Your task to perform on an android device: toggle pop-ups in chrome Image 0: 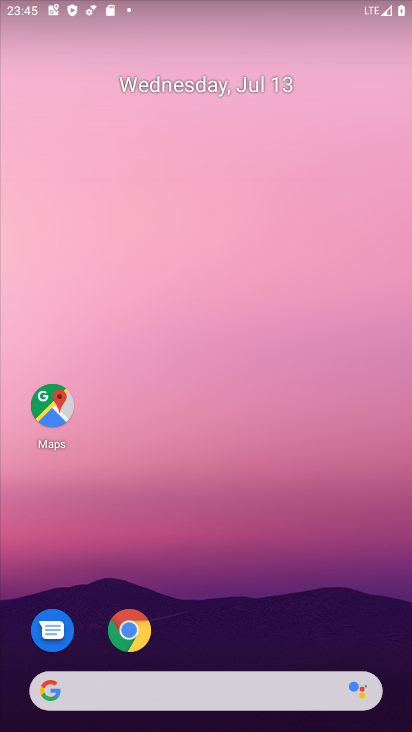
Step 0: drag from (365, 629) to (350, 73)
Your task to perform on an android device: toggle pop-ups in chrome Image 1: 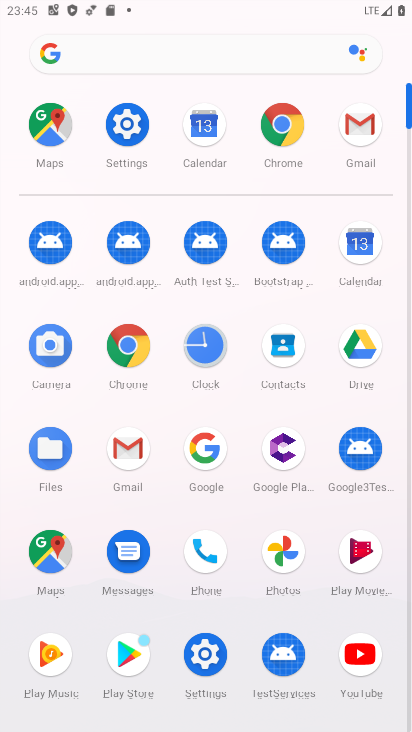
Step 1: click (129, 349)
Your task to perform on an android device: toggle pop-ups in chrome Image 2: 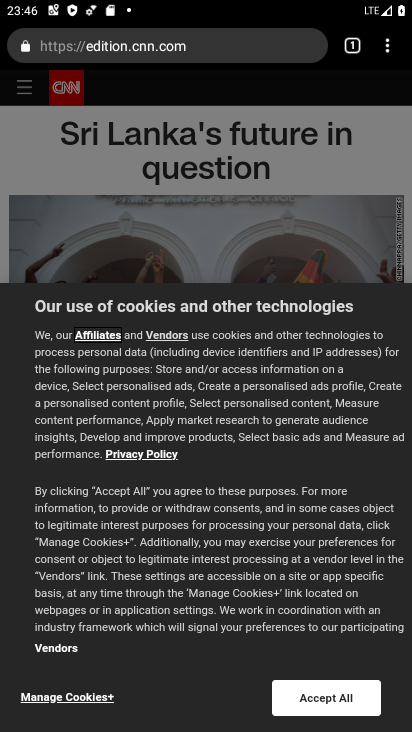
Step 2: click (387, 51)
Your task to perform on an android device: toggle pop-ups in chrome Image 3: 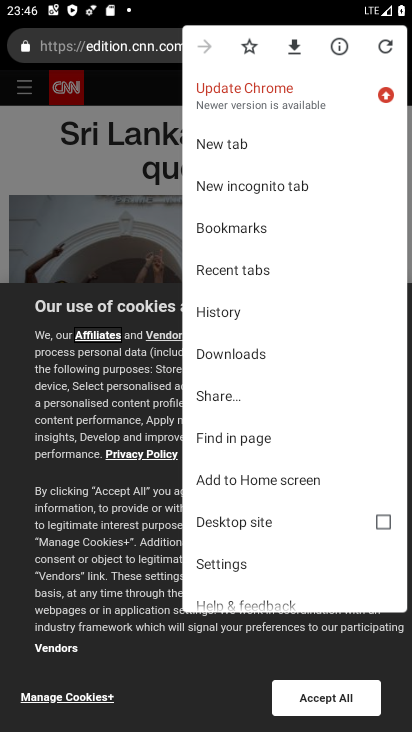
Step 3: click (231, 567)
Your task to perform on an android device: toggle pop-ups in chrome Image 4: 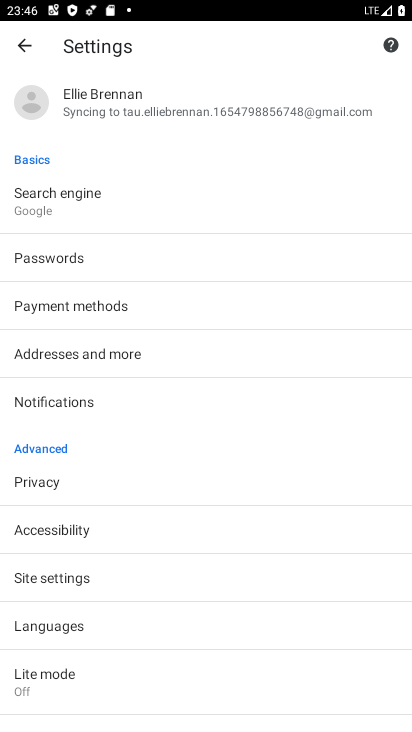
Step 4: click (213, 578)
Your task to perform on an android device: toggle pop-ups in chrome Image 5: 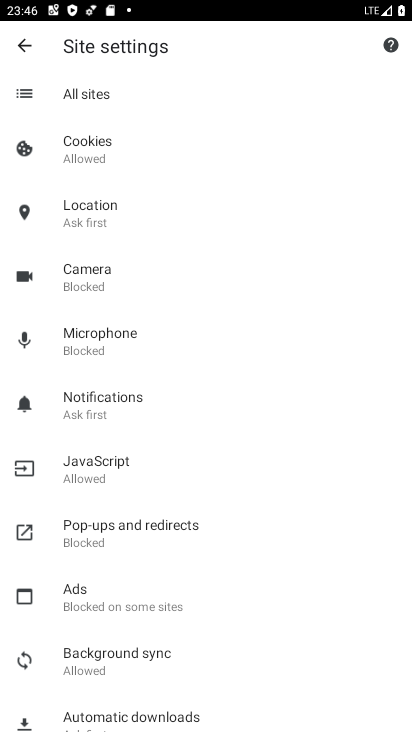
Step 5: drag from (314, 549) to (314, 424)
Your task to perform on an android device: toggle pop-ups in chrome Image 6: 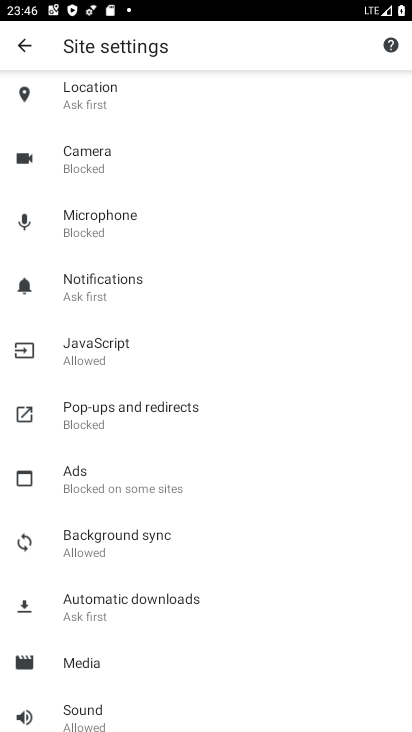
Step 6: drag from (312, 544) to (311, 415)
Your task to perform on an android device: toggle pop-ups in chrome Image 7: 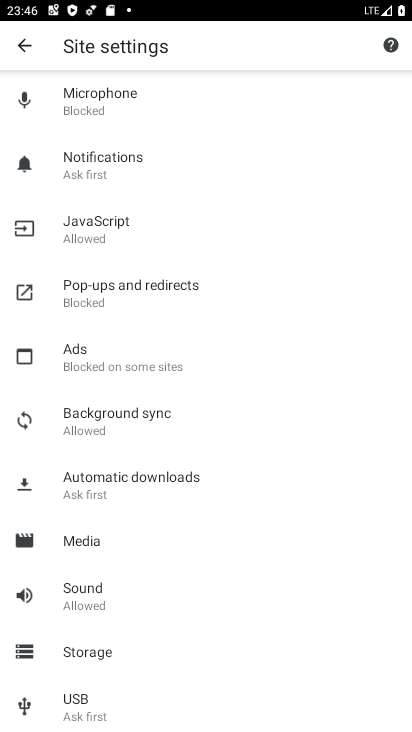
Step 7: drag from (310, 566) to (304, 392)
Your task to perform on an android device: toggle pop-ups in chrome Image 8: 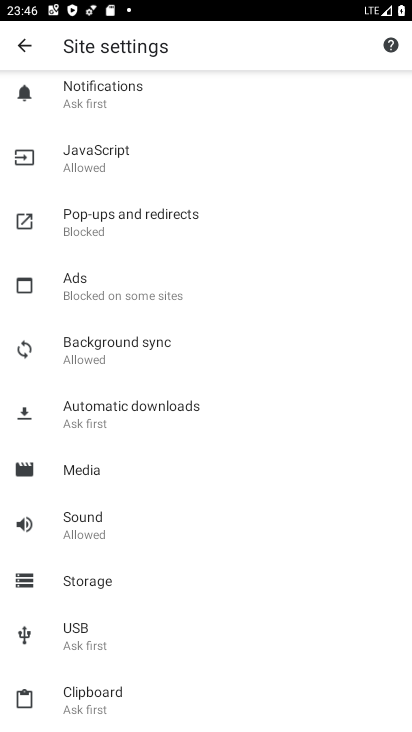
Step 8: drag from (288, 306) to (283, 445)
Your task to perform on an android device: toggle pop-ups in chrome Image 9: 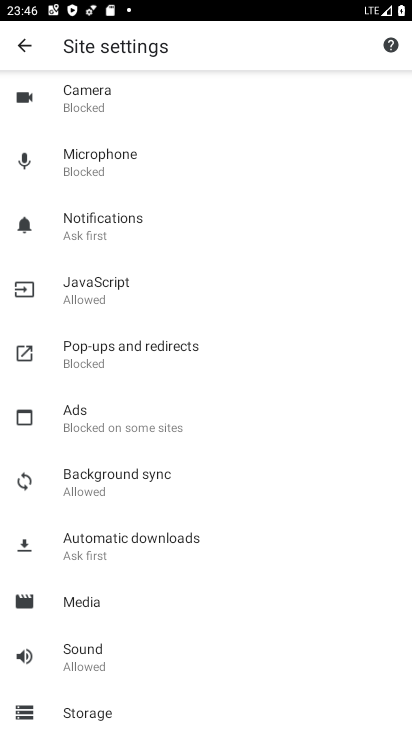
Step 9: drag from (289, 351) to (293, 555)
Your task to perform on an android device: toggle pop-ups in chrome Image 10: 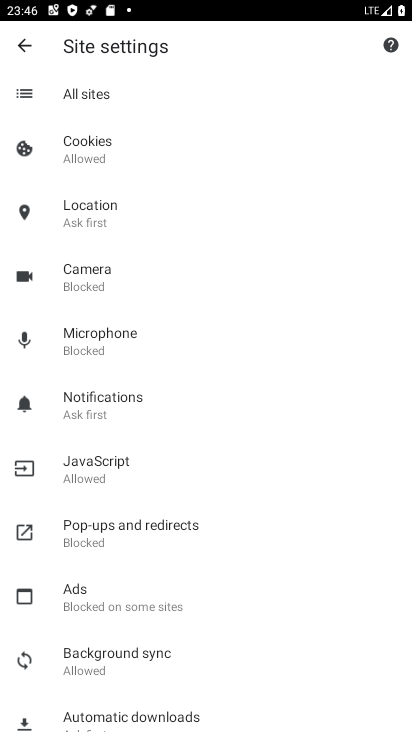
Step 10: click (203, 541)
Your task to perform on an android device: toggle pop-ups in chrome Image 11: 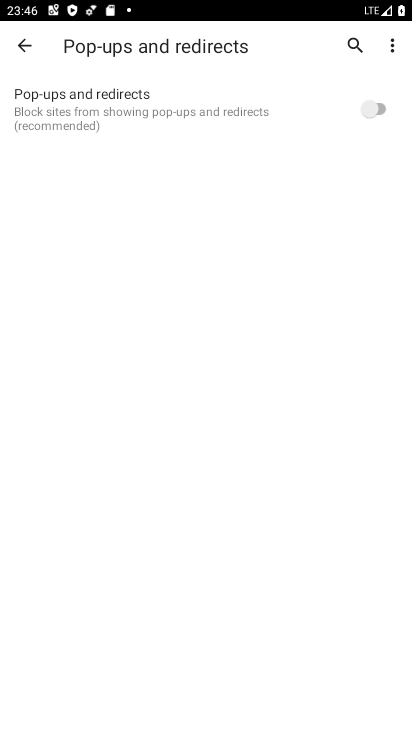
Step 11: click (375, 102)
Your task to perform on an android device: toggle pop-ups in chrome Image 12: 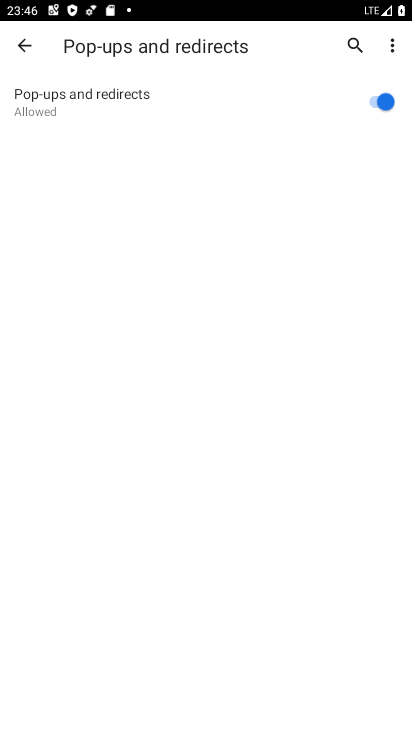
Step 12: task complete